Your task to perform on an android device: Open calendar and show me the fourth week of next month Image 0: 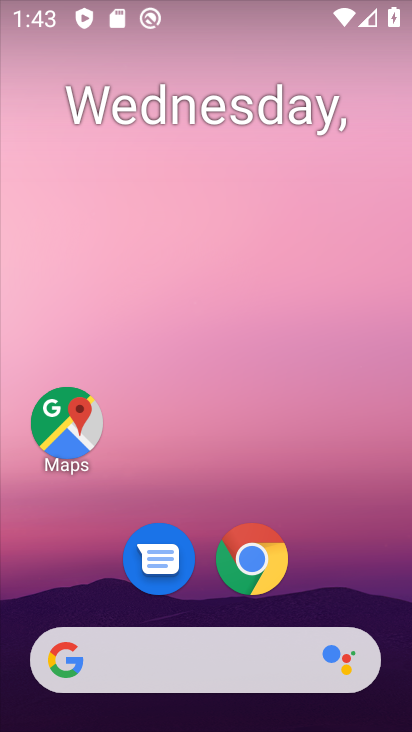
Step 0: drag from (347, 564) to (259, 80)
Your task to perform on an android device: Open calendar and show me the fourth week of next month Image 1: 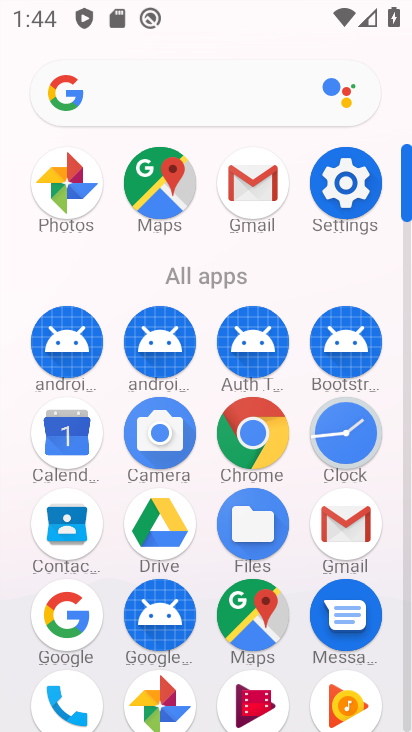
Step 1: click (68, 437)
Your task to perform on an android device: Open calendar and show me the fourth week of next month Image 2: 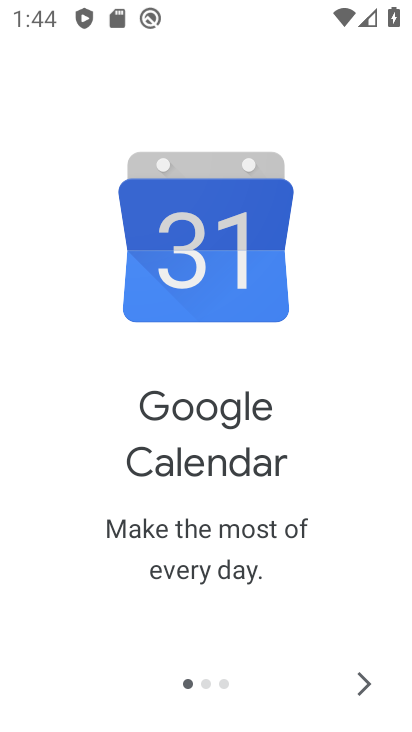
Step 2: click (367, 682)
Your task to perform on an android device: Open calendar and show me the fourth week of next month Image 3: 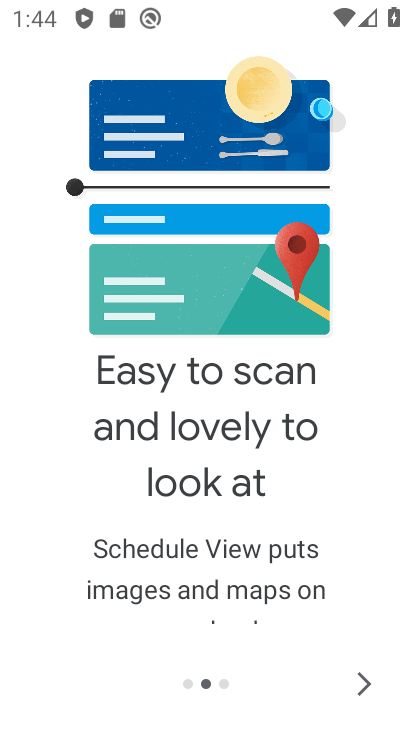
Step 3: click (367, 682)
Your task to perform on an android device: Open calendar and show me the fourth week of next month Image 4: 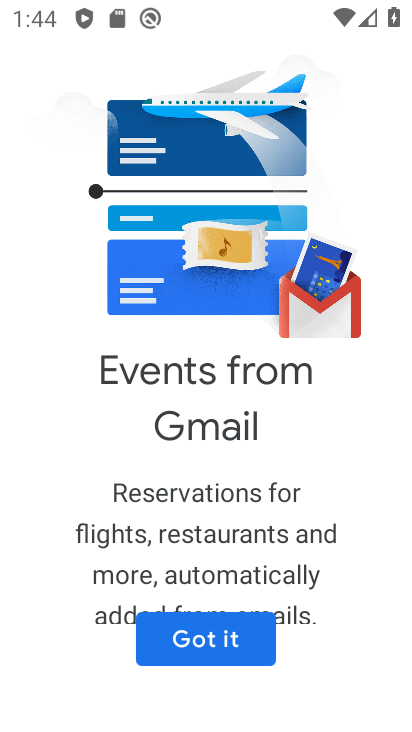
Step 4: click (213, 632)
Your task to perform on an android device: Open calendar and show me the fourth week of next month Image 5: 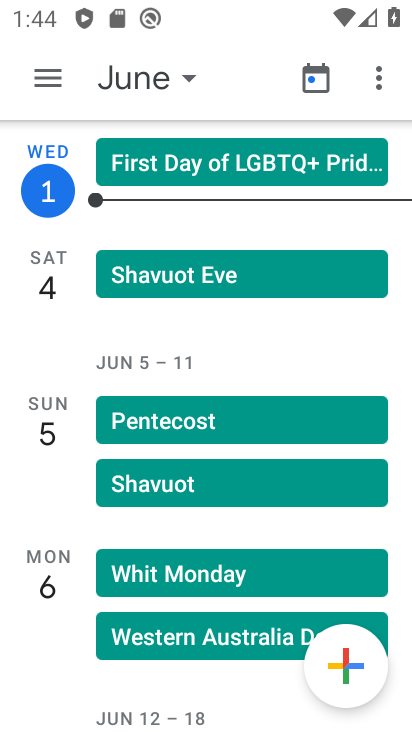
Step 5: click (191, 81)
Your task to perform on an android device: Open calendar and show me the fourth week of next month Image 6: 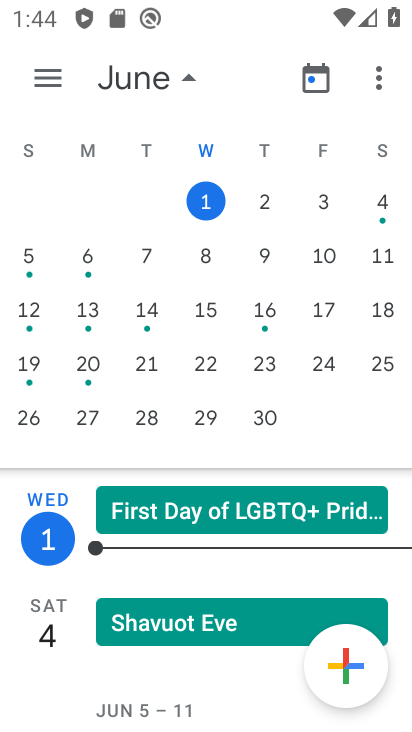
Step 6: drag from (357, 332) to (2, 301)
Your task to perform on an android device: Open calendar and show me the fourth week of next month Image 7: 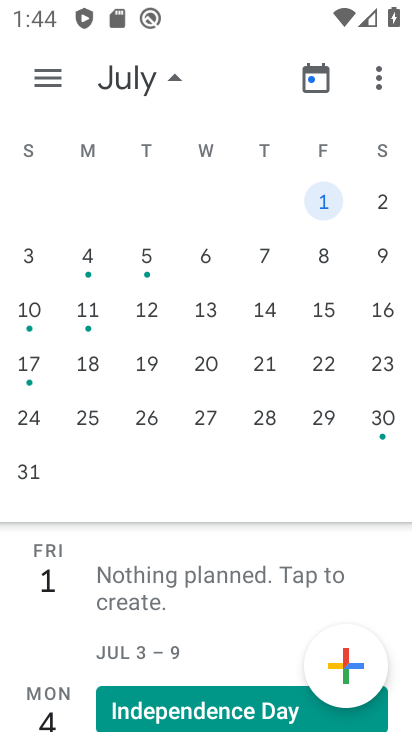
Step 7: click (92, 409)
Your task to perform on an android device: Open calendar and show me the fourth week of next month Image 8: 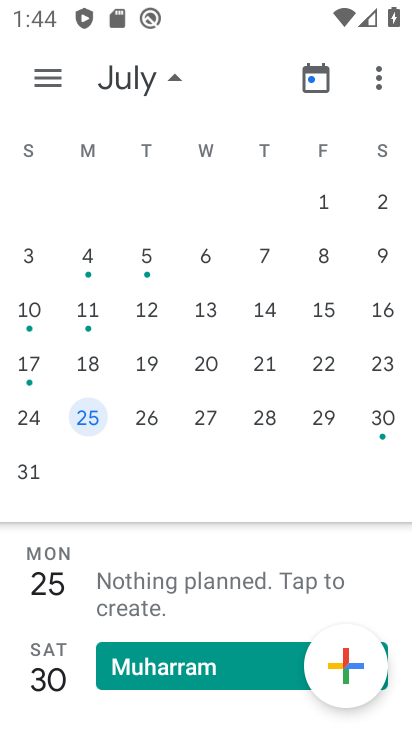
Step 8: click (46, 83)
Your task to perform on an android device: Open calendar and show me the fourth week of next month Image 9: 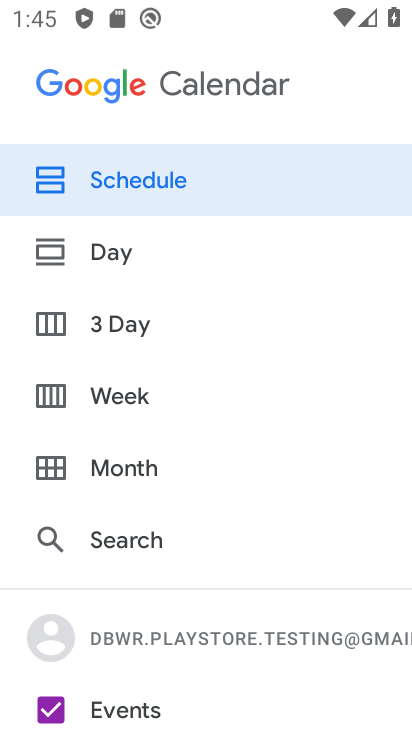
Step 9: click (114, 396)
Your task to perform on an android device: Open calendar and show me the fourth week of next month Image 10: 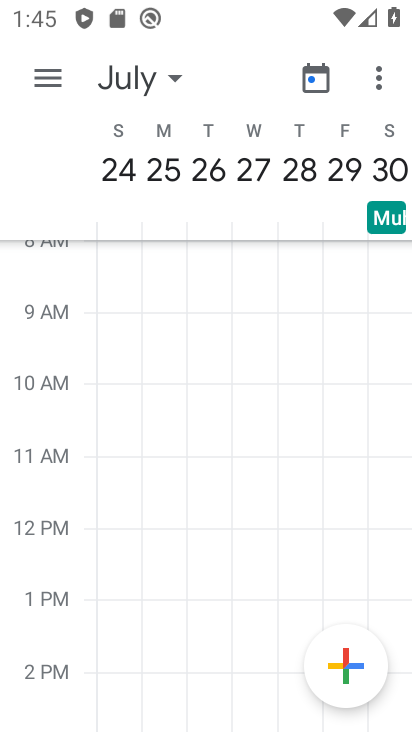
Step 10: task complete